Your task to perform on an android device: Open eBay Image 0: 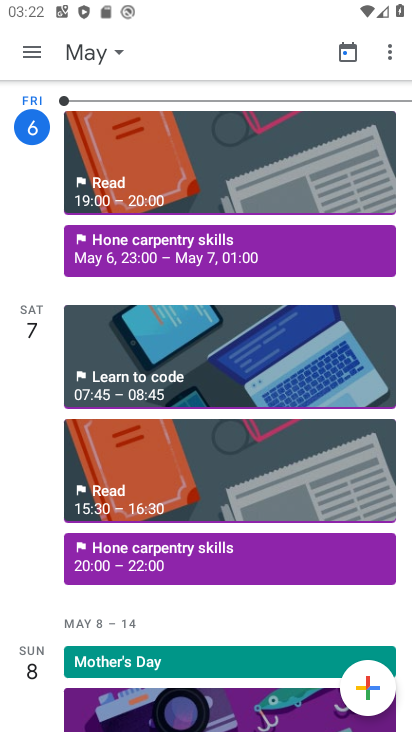
Step 0: press home button
Your task to perform on an android device: Open eBay Image 1: 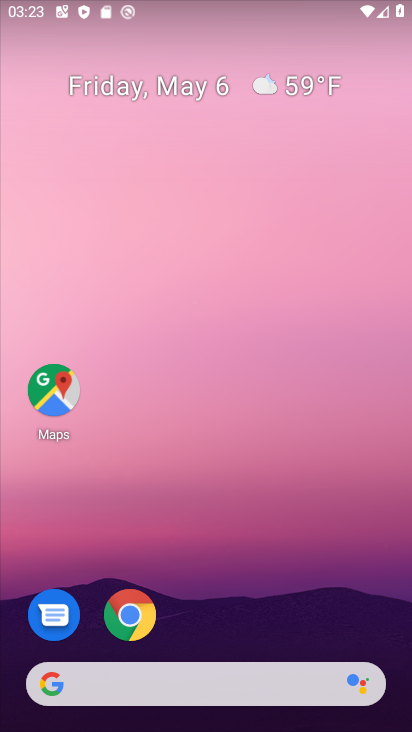
Step 1: click (139, 85)
Your task to perform on an android device: Open eBay Image 2: 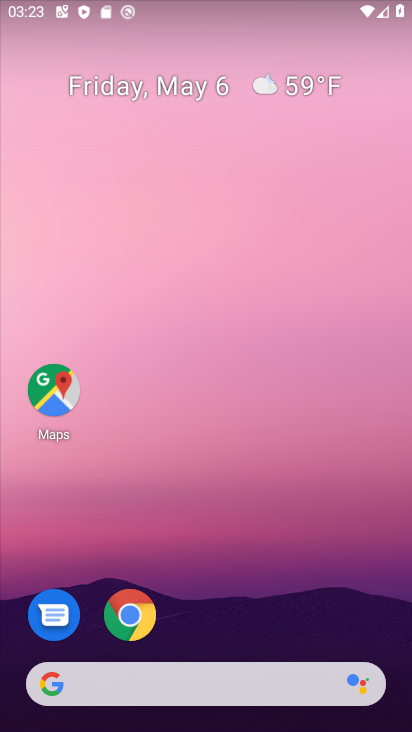
Step 2: drag from (313, 492) to (194, 123)
Your task to perform on an android device: Open eBay Image 3: 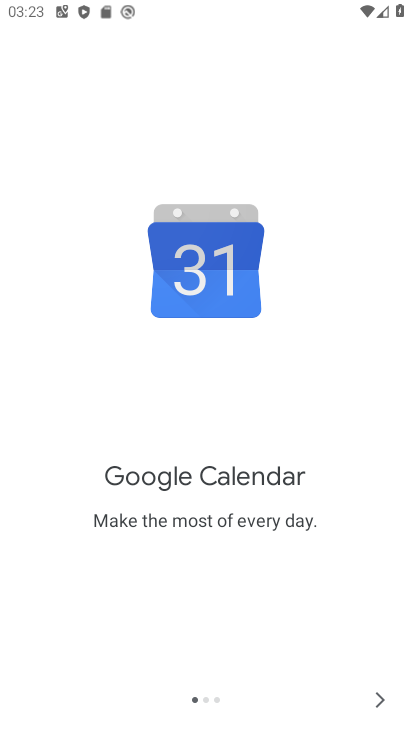
Step 3: click (377, 693)
Your task to perform on an android device: Open eBay Image 4: 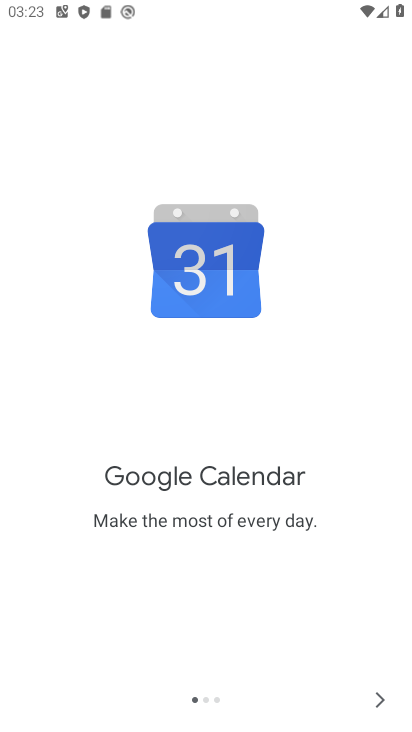
Step 4: click (377, 694)
Your task to perform on an android device: Open eBay Image 5: 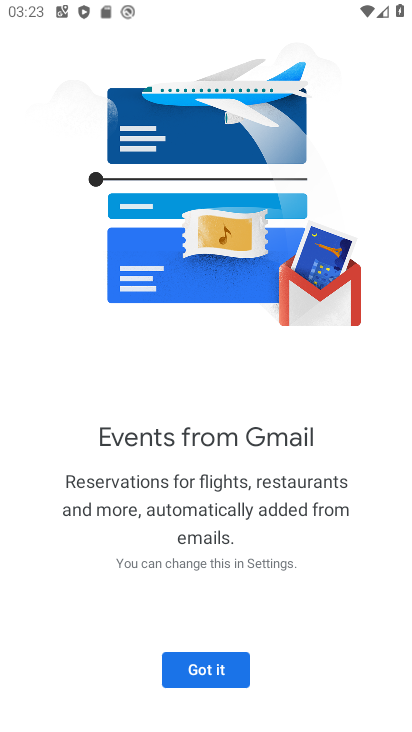
Step 5: click (372, 695)
Your task to perform on an android device: Open eBay Image 6: 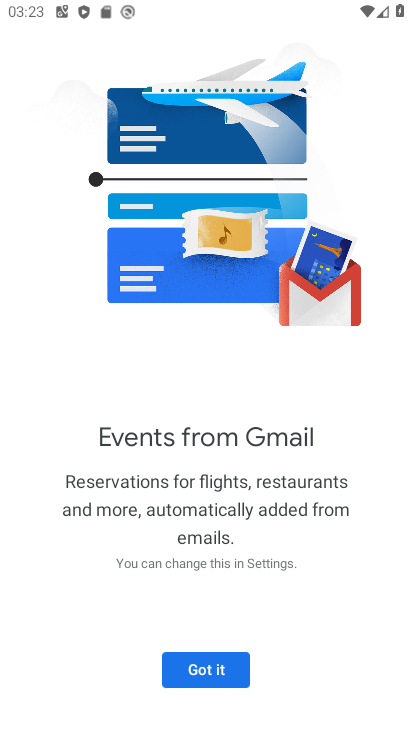
Step 6: click (209, 673)
Your task to perform on an android device: Open eBay Image 7: 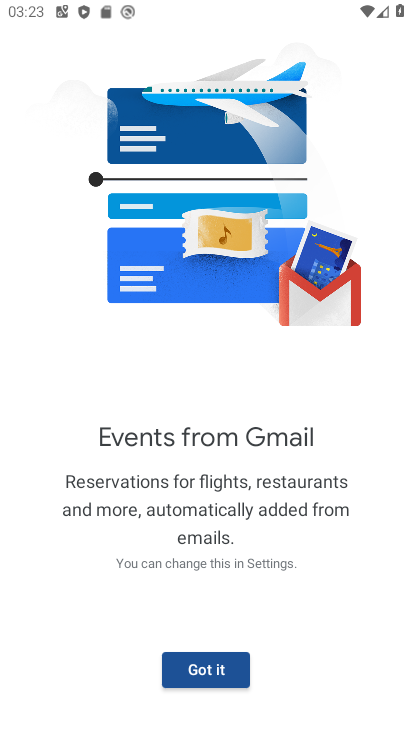
Step 7: click (210, 673)
Your task to perform on an android device: Open eBay Image 8: 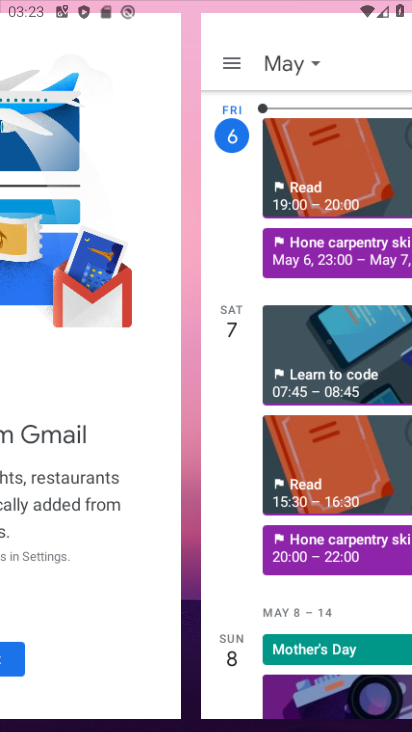
Step 8: click (212, 673)
Your task to perform on an android device: Open eBay Image 9: 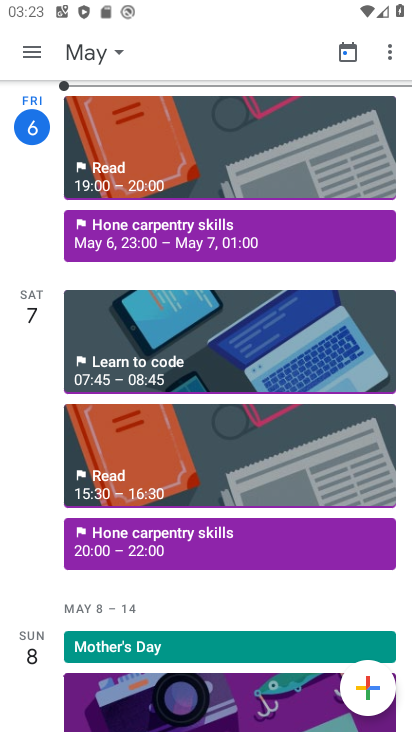
Step 9: click (207, 680)
Your task to perform on an android device: Open eBay Image 10: 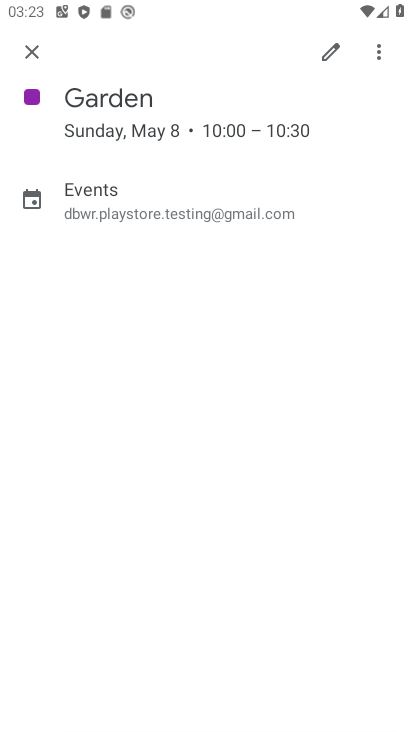
Step 10: drag from (24, 40) to (37, 75)
Your task to perform on an android device: Open eBay Image 11: 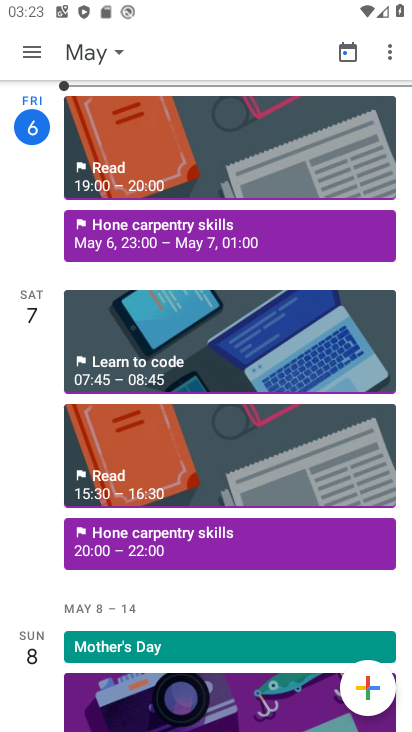
Step 11: press home button
Your task to perform on an android device: Open eBay Image 12: 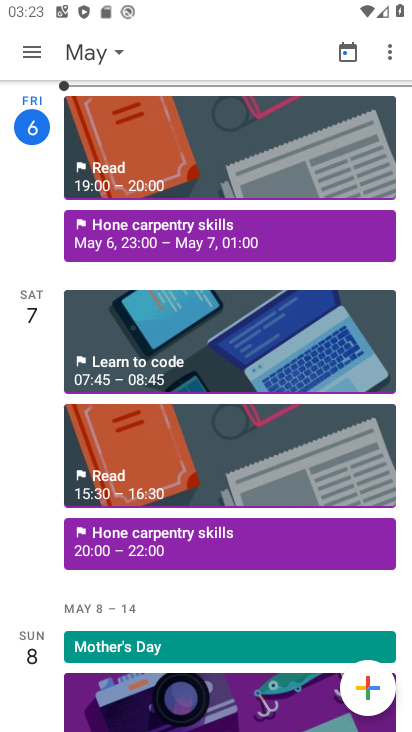
Step 12: press home button
Your task to perform on an android device: Open eBay Image 13: 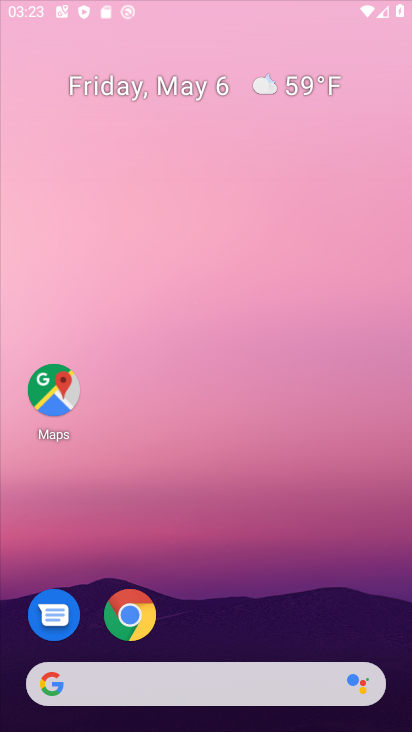
Step 13: press home button
Your task to perform on an android device: Open eBay Image 14: 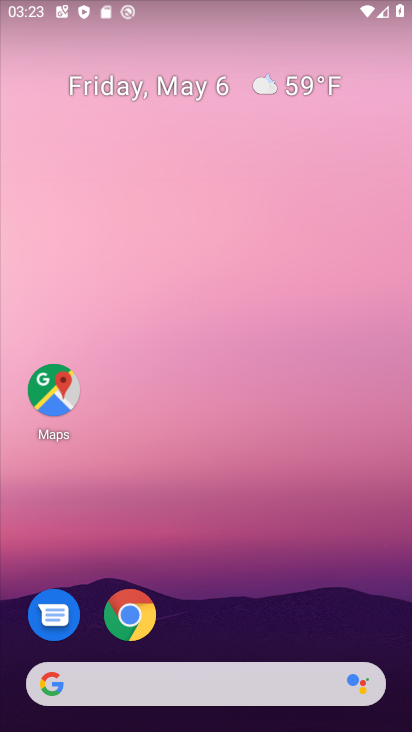
Step 14: press home button
Your task to perform on an android device: Open eBay Image 15: 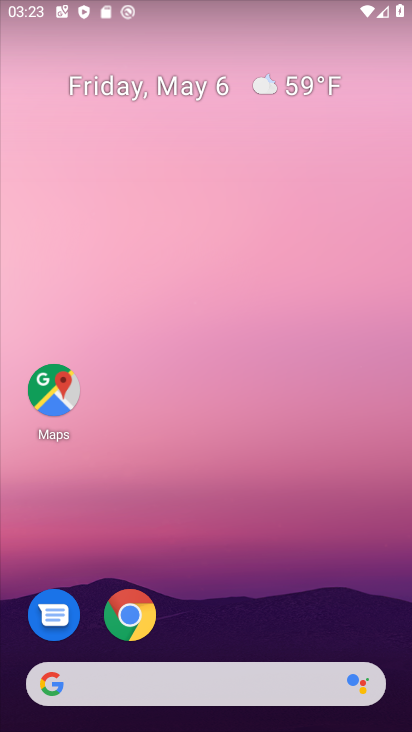
Step 15: press home button
Your task to perform on an android device: Open eBay Image 16: 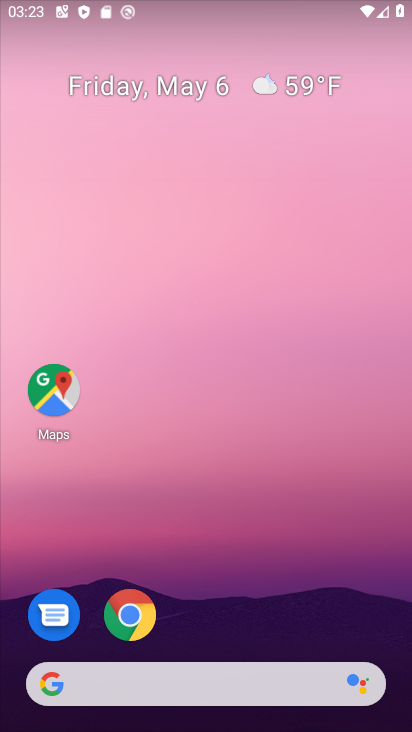
Step 16: press home button
Your task to perform on an android device: Open eBay Image 17: 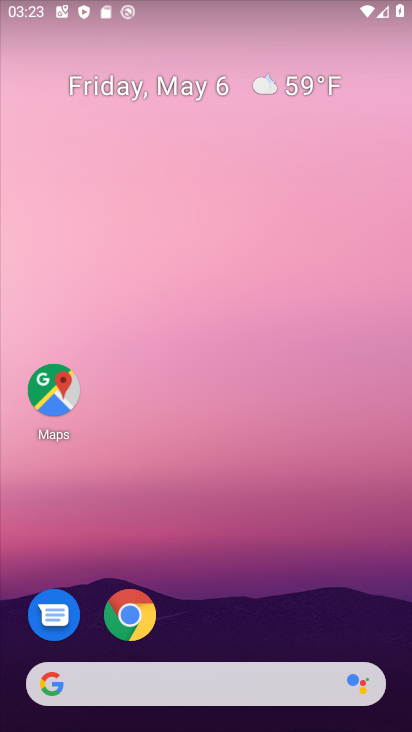
Step 17: press home button
Your task to perform on an android device: Open eBay Image 18: 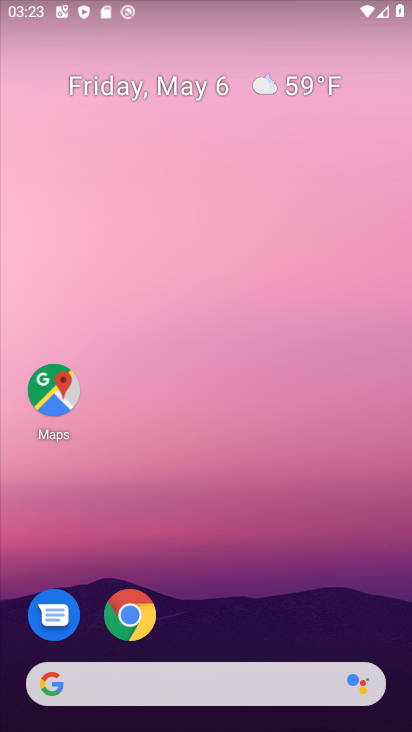
Step 18: press home button
Your task to perform on an android device: Open eBay Image 19: 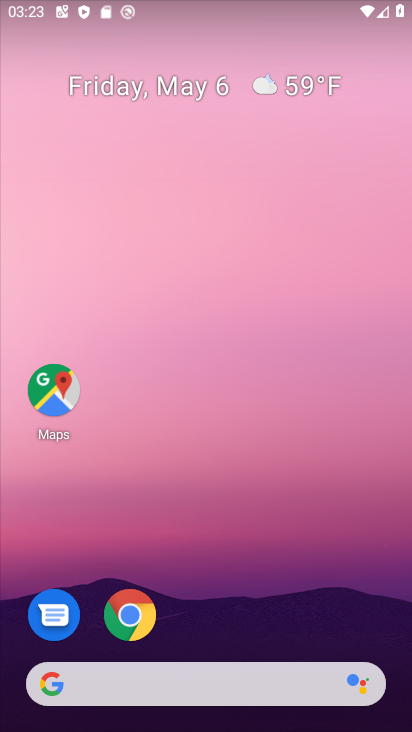
Step 19: press home button
Your task to perform on an android device: Open eBay Image 20: 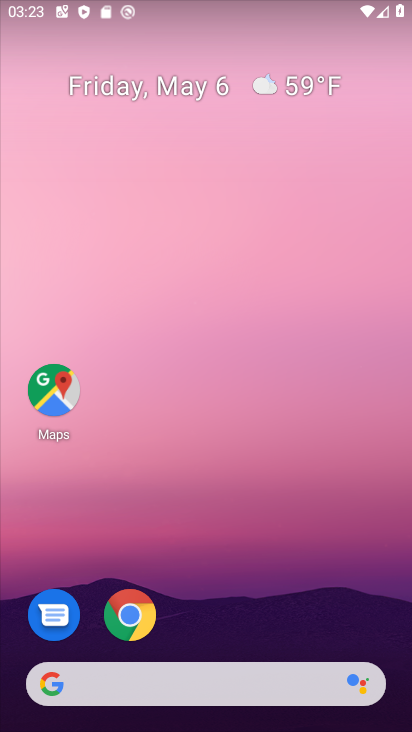
Step 20: press home button
Your task to perform on an android device: Open eBay Image 21: 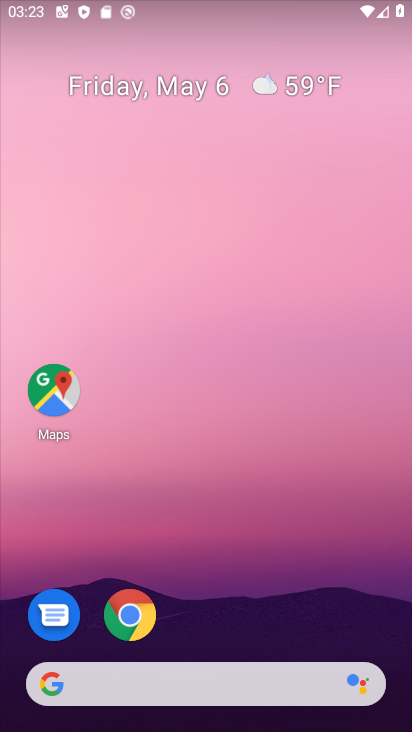
Step 21: press home button
Your task to perform on an android device: Open eBay Image 22: 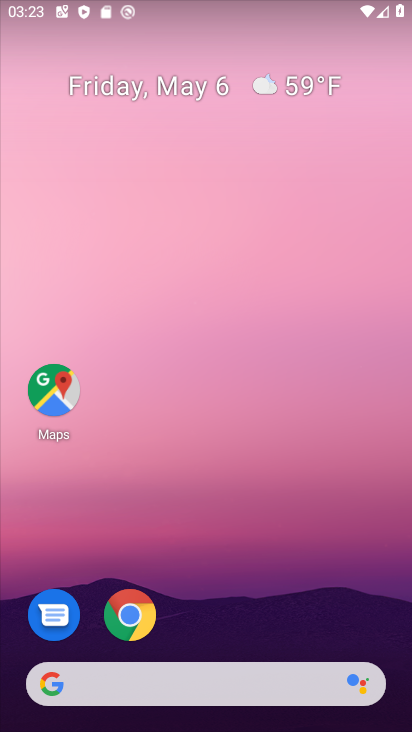
Step 22: press home button
Your task to perform on an android device: Open eBay Image 23: 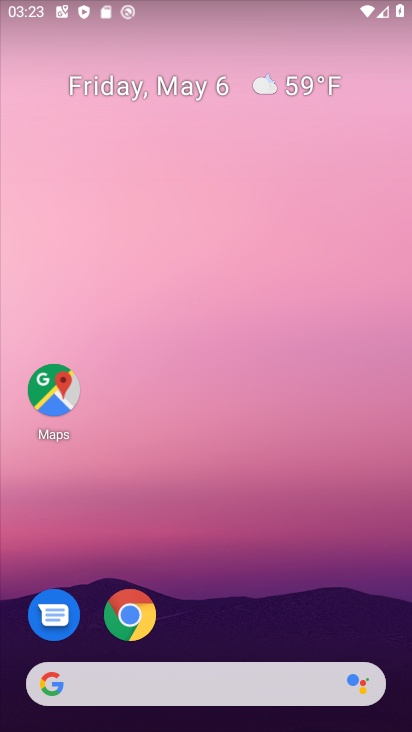
Step 23: press home button
Your task to perform on an android device: Open eBay Image 24: 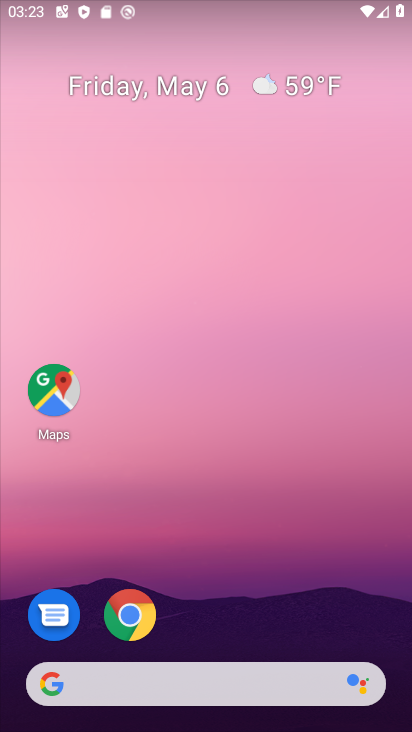
Step 24: drag from (311, 649) to (112, 13)
Your task to perform on an android device: Open eBay Image 25: 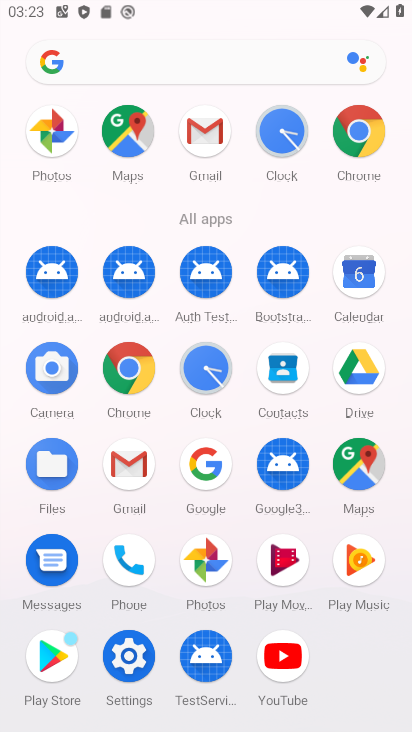
Step 25: drag from (278, 540) to (146, 27)
Your task to perform on an android device: Open eBay Image 26: 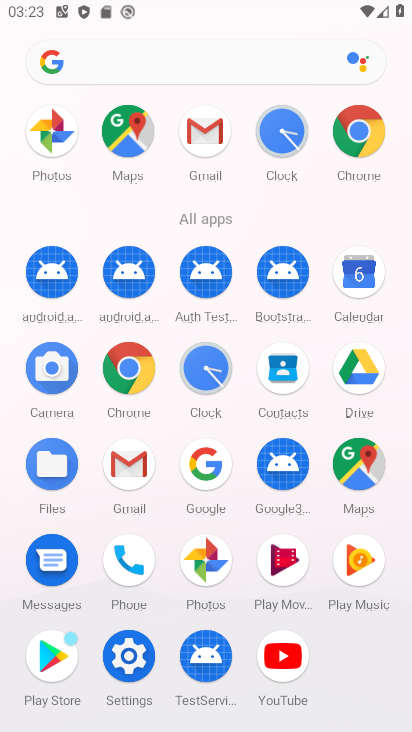
Step 26: click (361, 129)
Your task to perform on an android device: Open eBay Image 27: 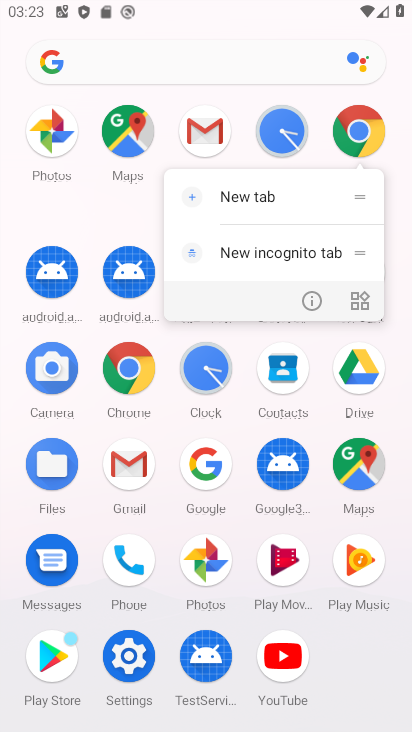
Step 27: click (365, 129)
Your task to perform on an android device: Open eBay Image 28: 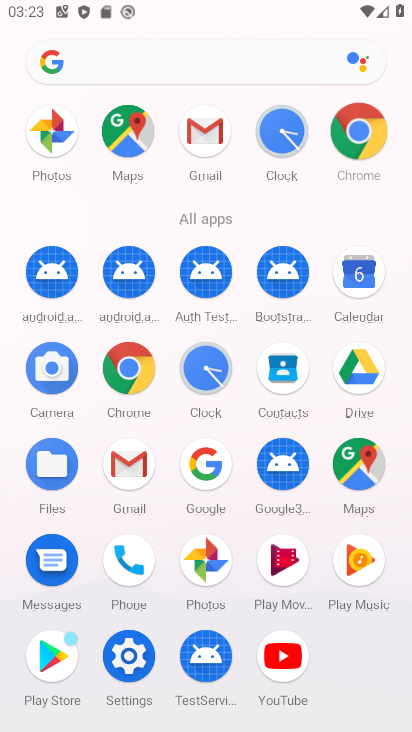
Step 28: click (365, 129)
Your task to perform on an android device: Open eBay Image 29: 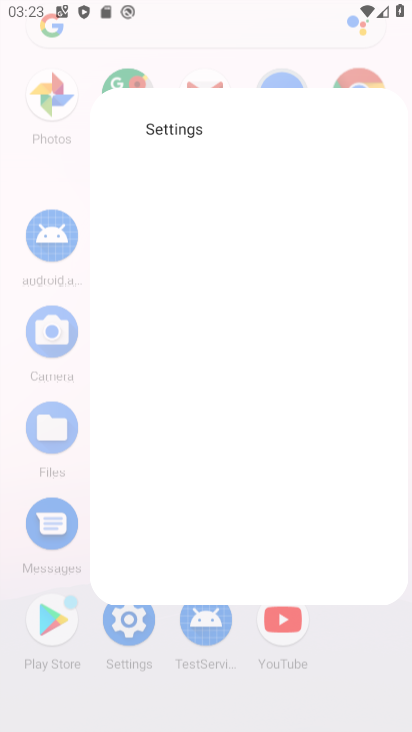
Step 29: click (364, 130)
Your task to perform on an android device: Open eBay Image 30: 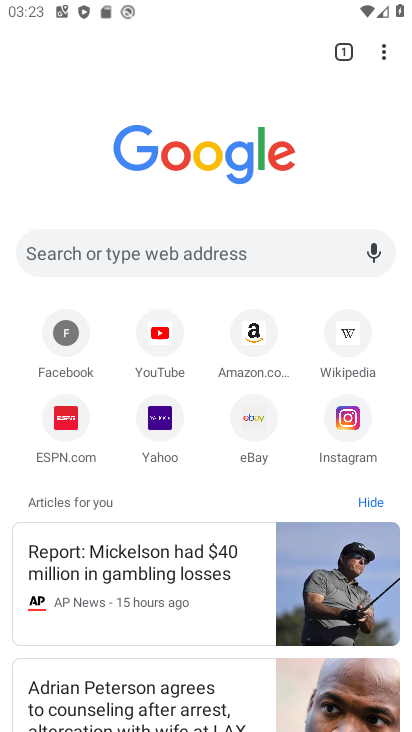
Step 30: click (253, 422)
Your task to perform on an android device: Open eBay Image 31: 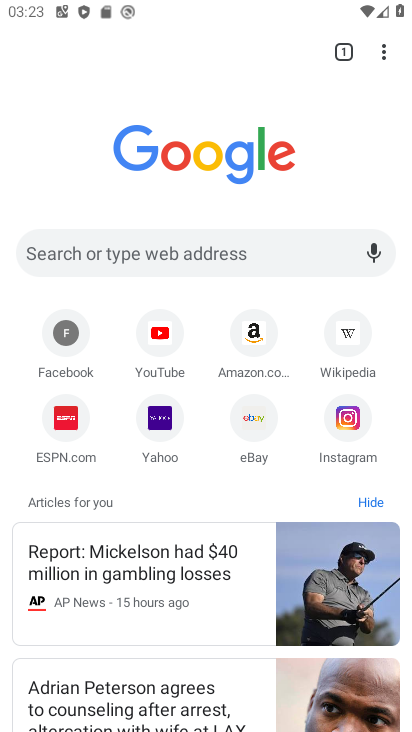
Step 31: click (253, 422)
Your task to perform on an android device: Open eBay Image 32: 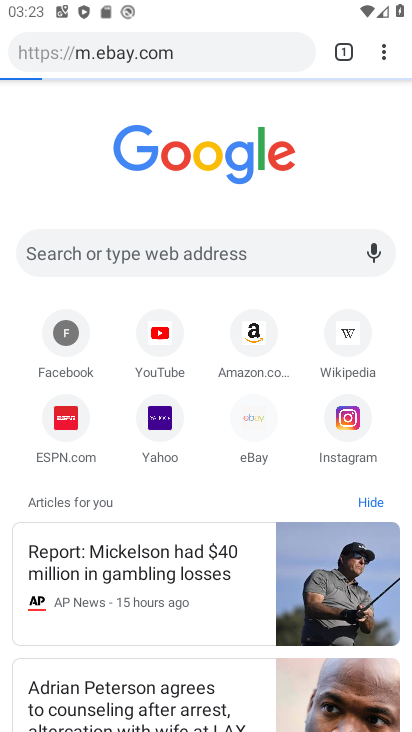
Step 32: click (253, 422)
Your task to perform on an android device: Open eBay Image 33: 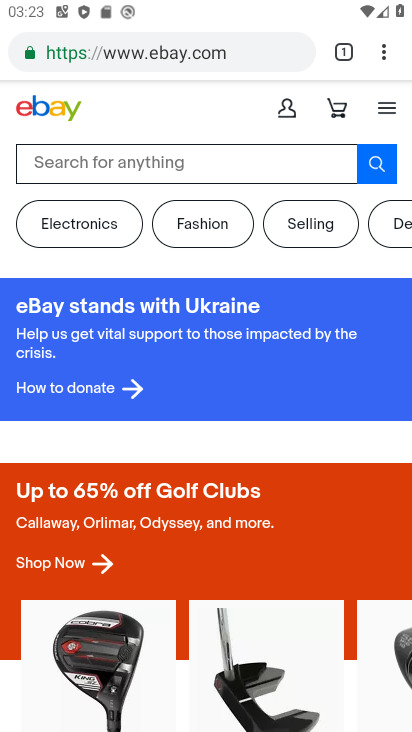
Step 33: task complete